Your task to perform on an android device: What is the capital of Brazil? Image 0: 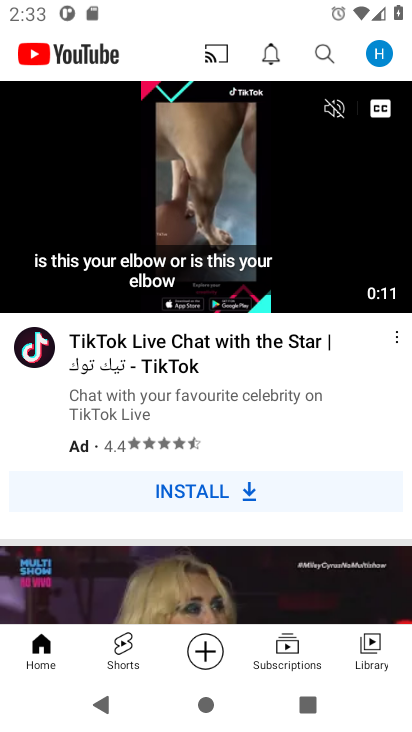
Step 0: press home button
Your task to perform on an android device: What is the capital of Brazil? Image 1: 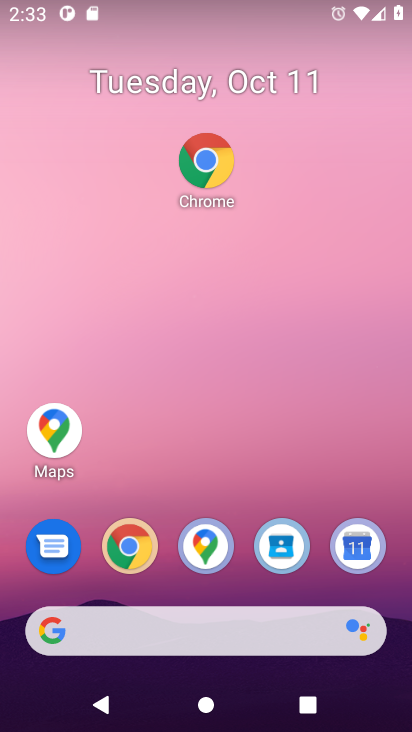
Step 1: click (135, 551)
Your task to perform on an android device: What is the capital of Brazil? Image 2: 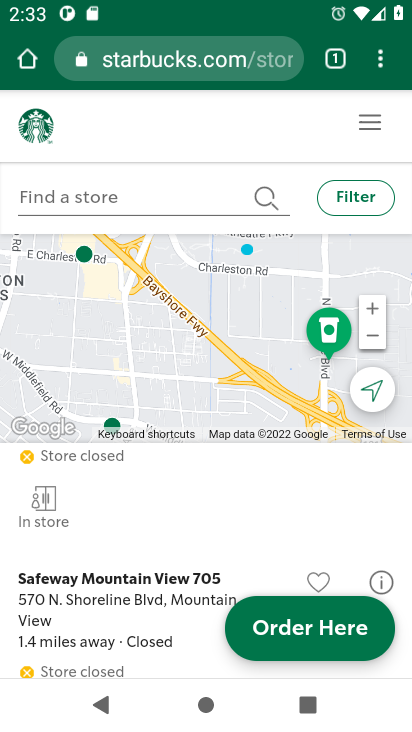
Step 2: click (200, 66)
Your task to perform on an android device: What is the capital of Brazil? Image 3: 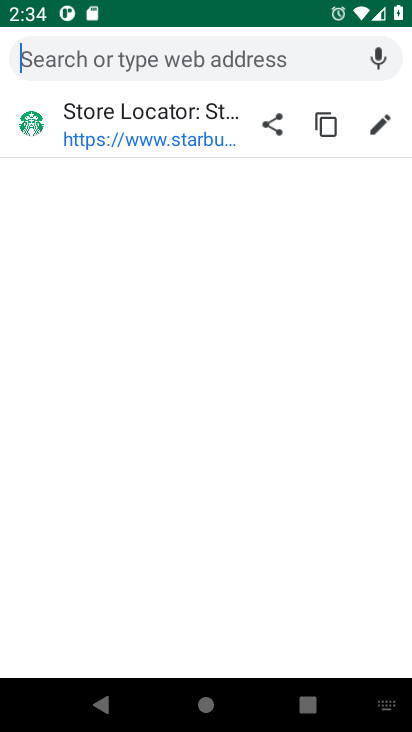
Step 3: type "capital of Brazil"
Your task to perform on an android device: What is the capital of Brazil? Image 4: 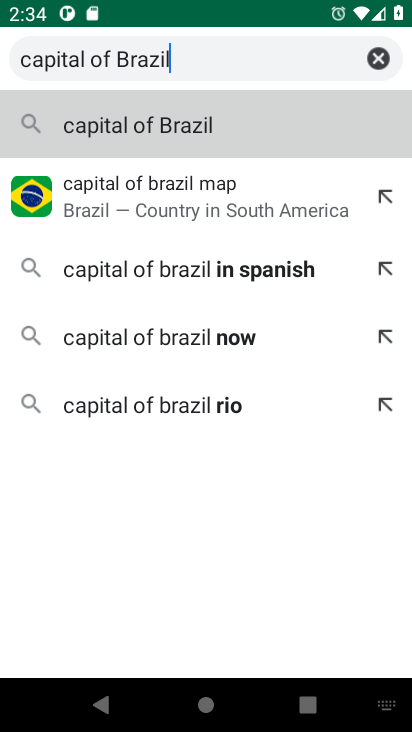
Step 4: press enter
Your task to perform on an android device: What is the capital of Brazil? Image 5: 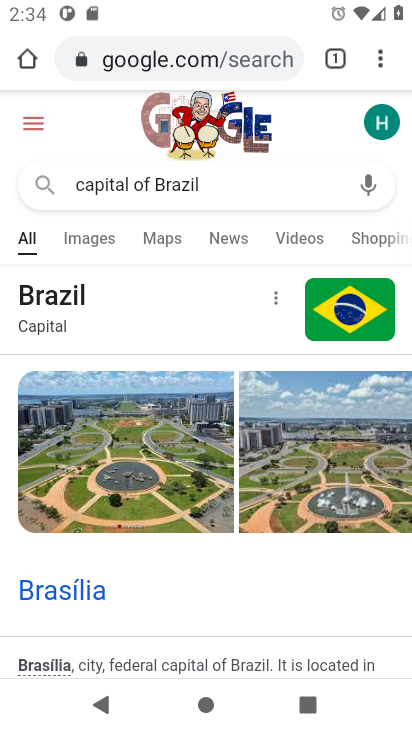
Step 5: task complete